Your task to perform on an android device: Open location settings Image 0: 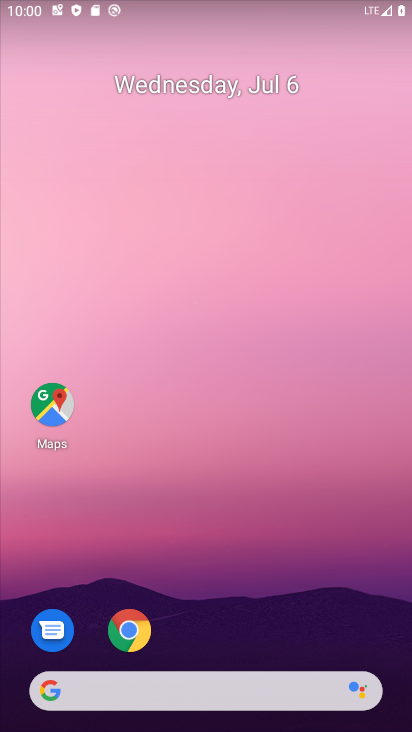
Step 0: drag from (353, 619) to (310, 140)
Your task to perform on an android device: Open location settings Image 1: 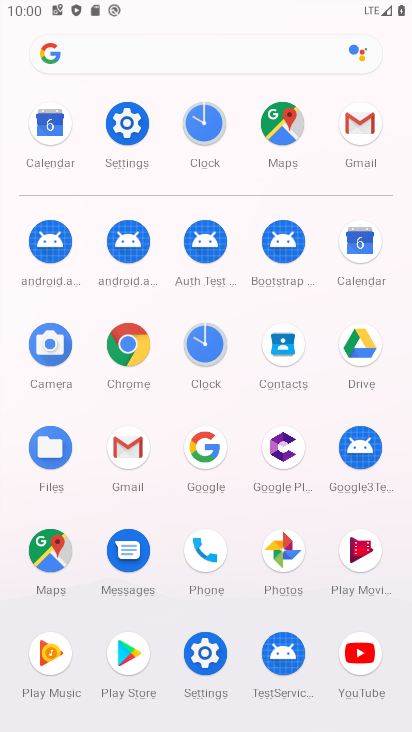
Step 1: click (206, 652)
Your task to perform on an android device: Open location settings Image 2: 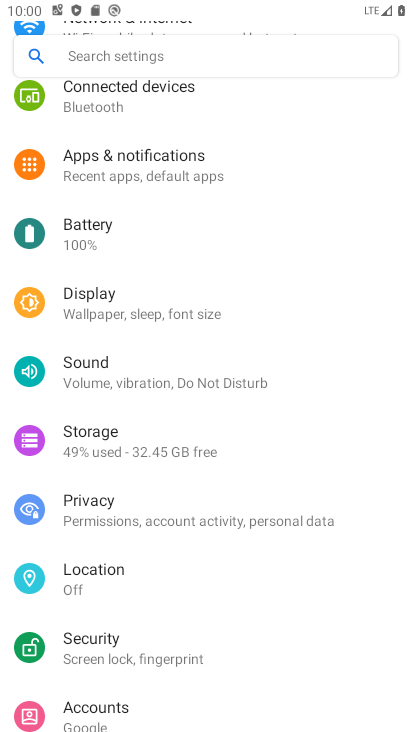
Step 2: click (85, 566)
Your task to perform on an android device: Open location settings Image 3: 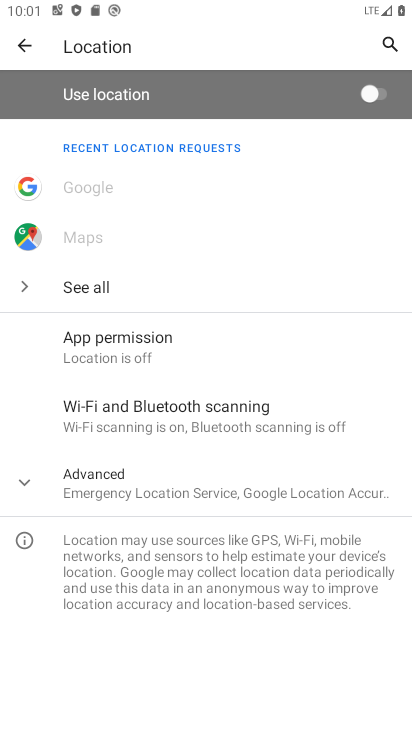
Step 3: task complete